Your task to perform on an android device: change notification settings in the gmail app Image 0: 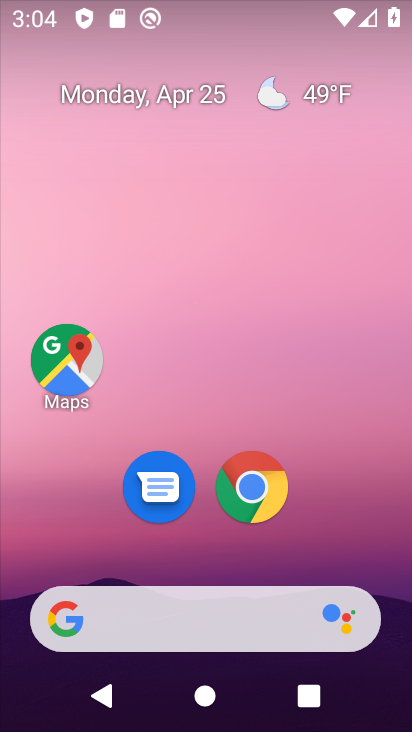
Step 0: drag from (374, 517) to (399, 24)
Your task to perform on an android device: change notification settings in the gmail app Image 1: 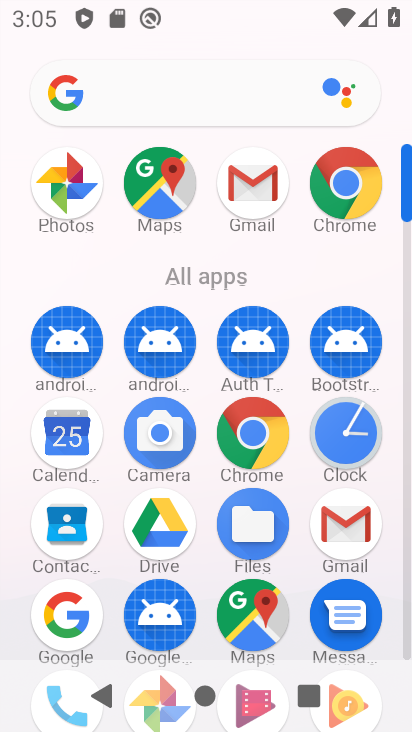
Step 1: drag from (406, 526) to (400, 394)
Your task to perform on an android device: change notification settings in the gmail app Image 2: 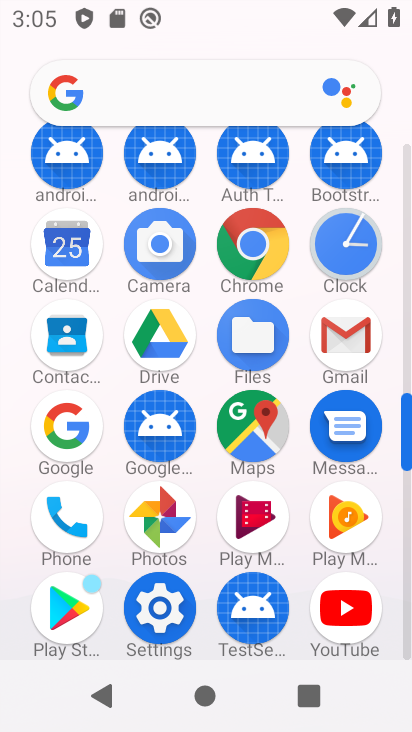
Step 2: click (344, 337)
Your task to perform on an android device: change notification settings in the gmail app Image 3: 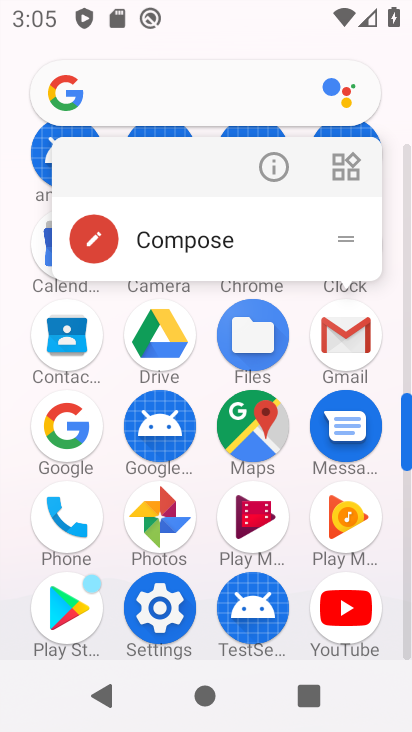
Step 3: click (344, 337)
Your task to perform on an android device: change notification settings in the gmail app Image 4: 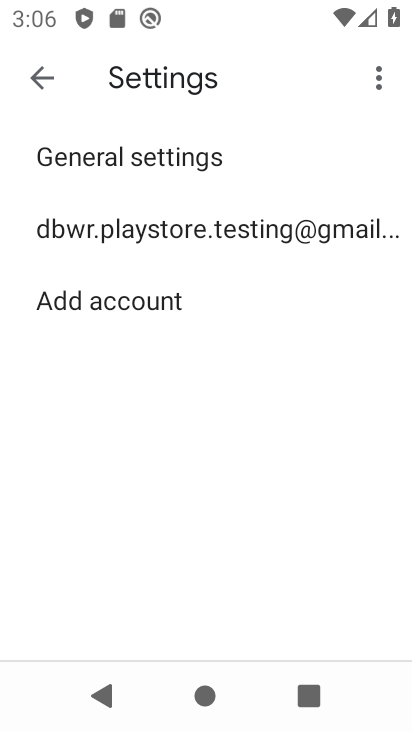
Step 4: click (124, 160)
Your task to perform on an android device: change notification settings in the gmail app Image 5: 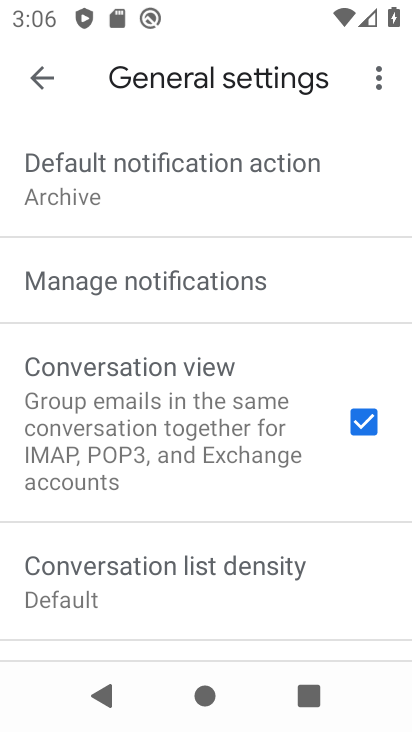
Step 5: click (107, 284)
Your task to perform on an android device: change notification settings in the gmail app Image 6: 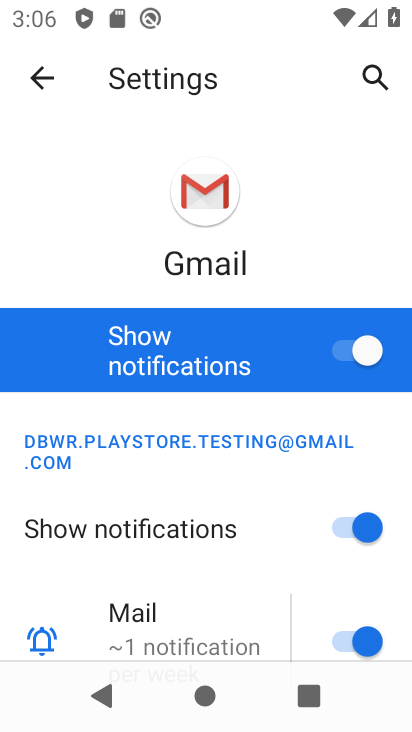
Step 6: click (373, 357)
Your task to perform on an android device: change notification settings in the gmail app Image 7: 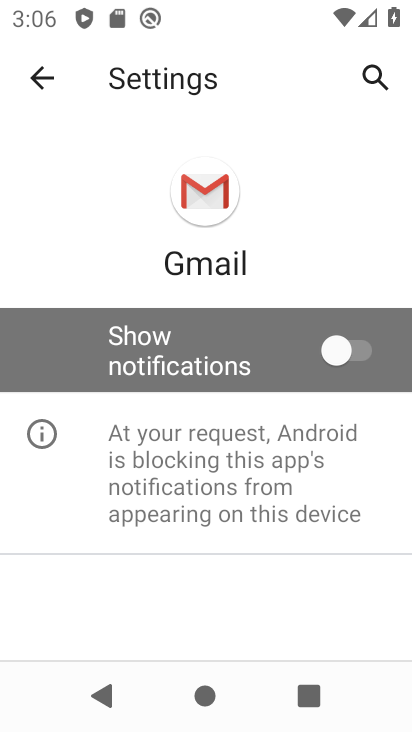
Step 7: task complete